Your task to perform on an android device: check the backup settings in the google photos Image 0: 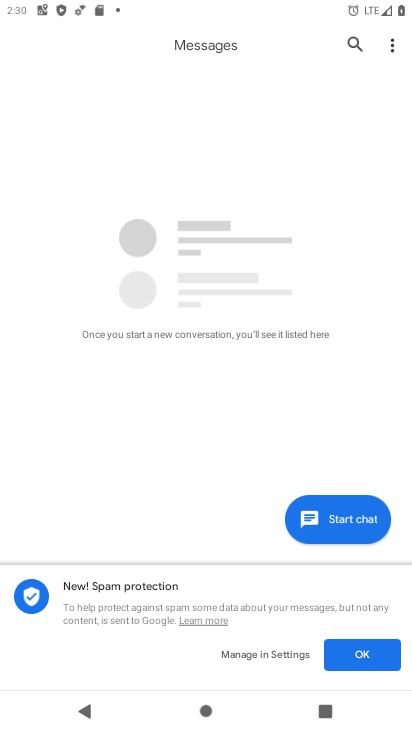
Step 0: press home button
Your task to perform on an android device: check the backup settings in the google photos Image 1: 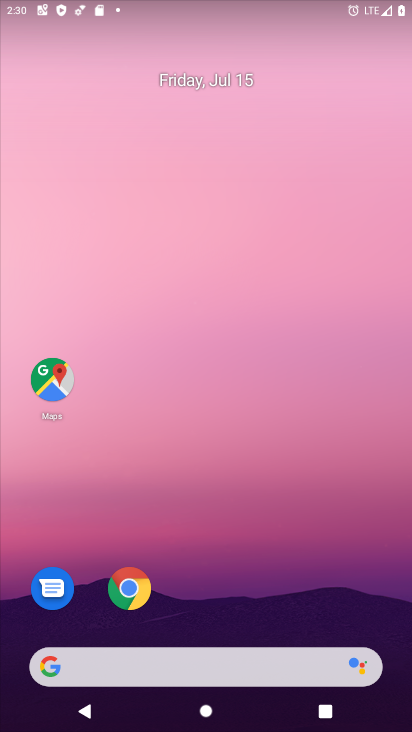
Step 1: drag from (213, 671) to (171, 78)
Your task to perform on an android device: check the backup settings in the google photos Image 2: 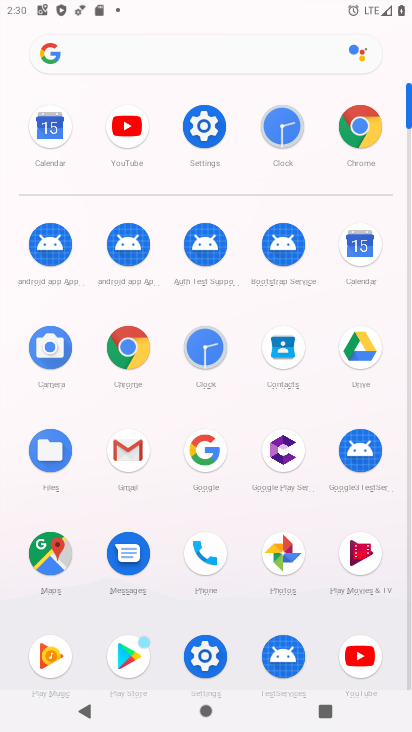
Step 2: click (287, 552)
Your task to perform on an android device: check the backup settings in the google photos Image 3: 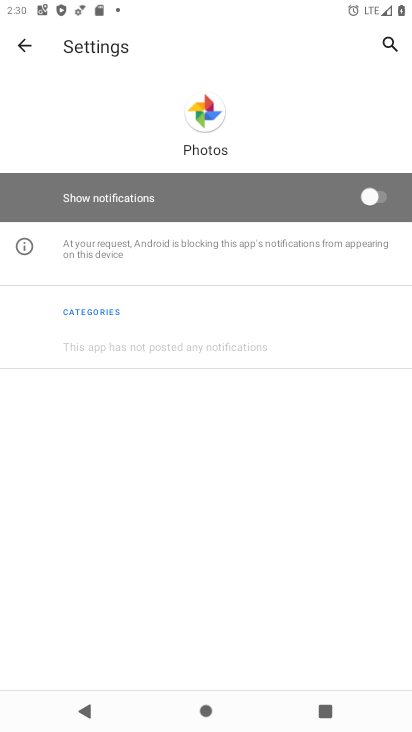
Step 3: press back button
Your task to perform on an android device: check the backup settings in the google photos Image 4: 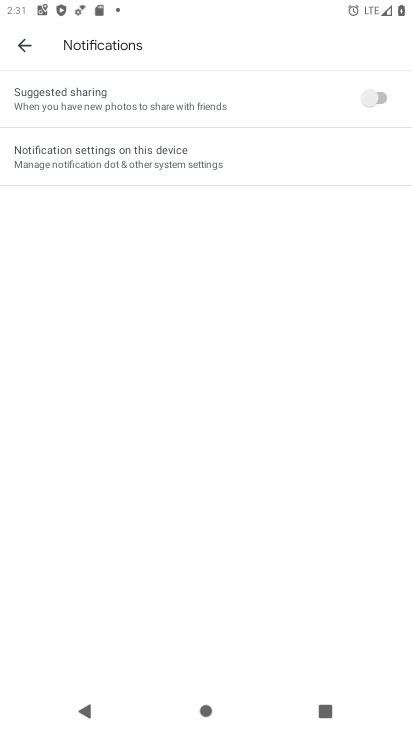
Step 4: press back button
Your task to perform on an android device: check the backup settings in the google photos Image 5: 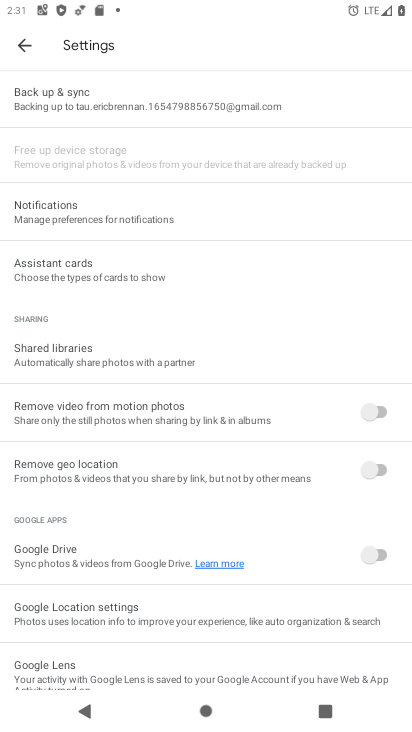
Step 5: click (262, 108)
Your task to perform on an android device: check the backup settings in the google photos Image 6: 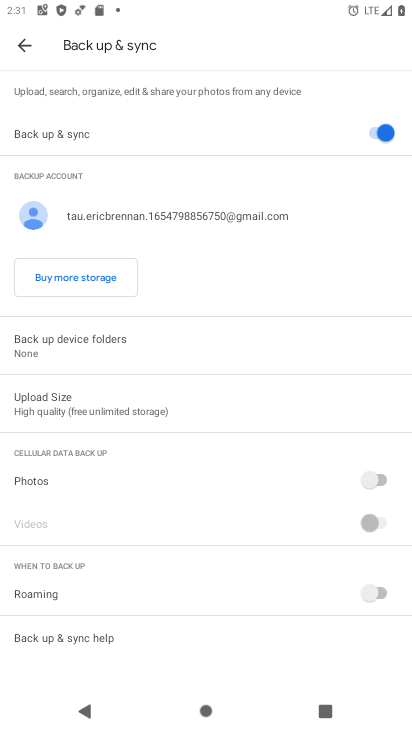
Step 6: task complete